Your task to perform on an android device: empty trash in google photos Image 0: 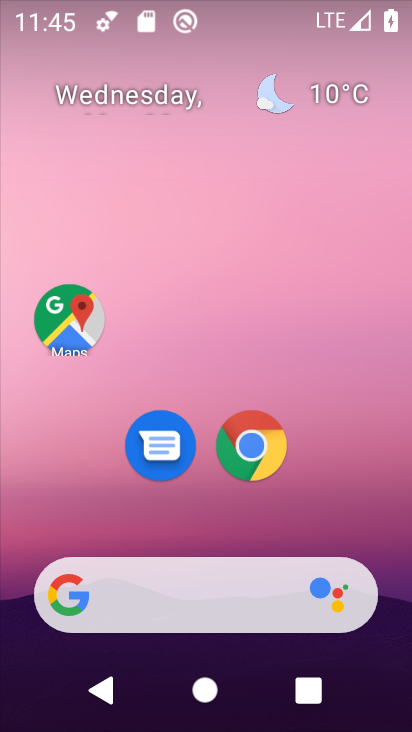
Step 0: drag from (200, 550) to (279, 89)
Your task to perform on an android device: empty trash in google photos Image 1: 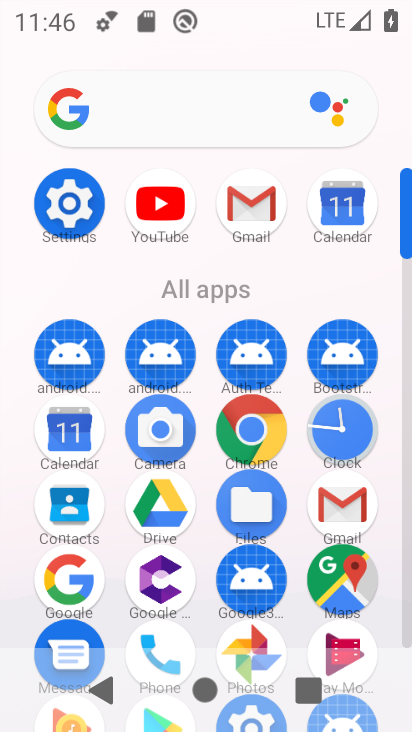
Step 1: drag from (233, 597) to (257, 325)
Your task to perform on an android device: empty trash in google photos Image 2: 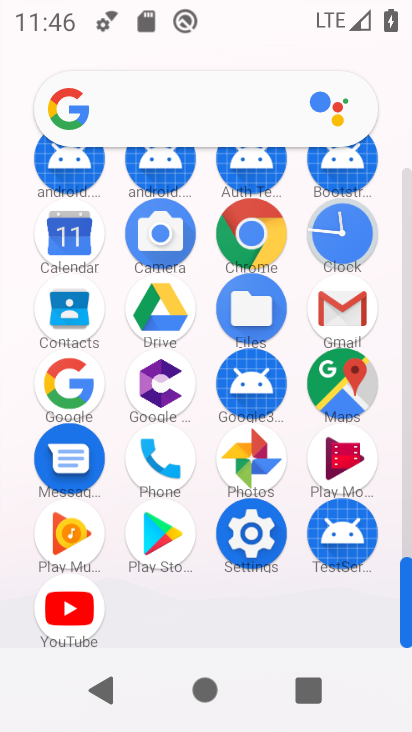
Step 2: click (247, 466)
Your task to perform on an android device: empty trash in google photos Image 3: 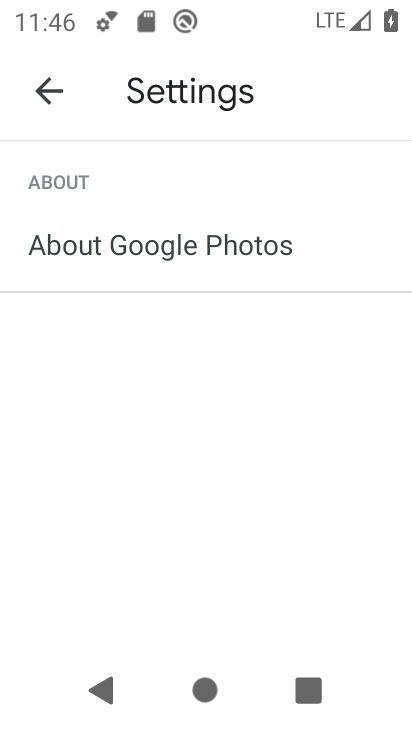
Step 3: click (39, 83)
Your task to perform on an android device: empty trash in google photos Image 4: 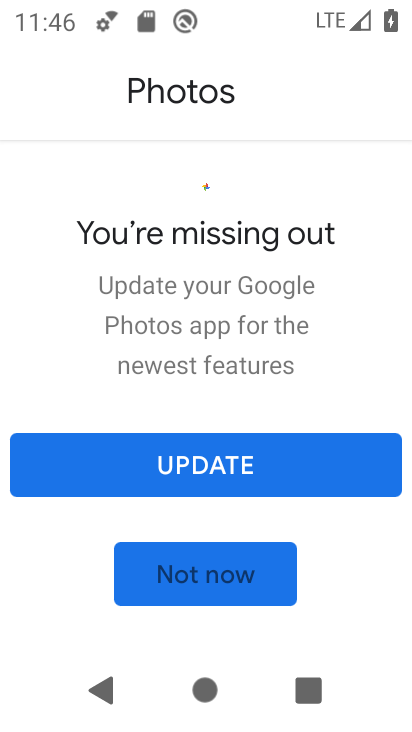
Step 4: click (188, 587)
Your task to perform on an android device: empty trash in google photos Image 5: 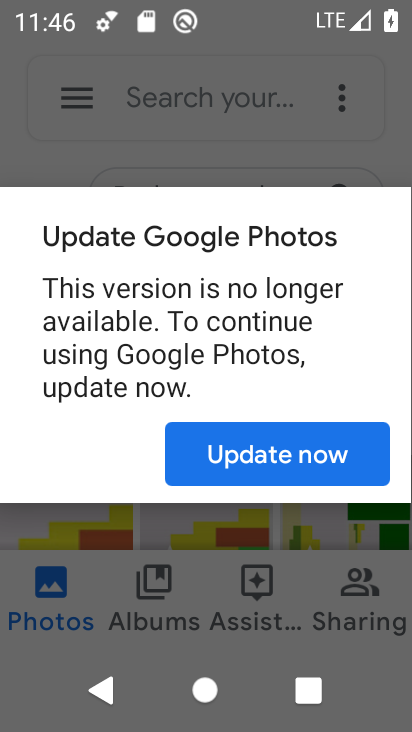
Step 5: click (262, 456)
Your task to perform on an android device: empty trash in google photos Image 6: 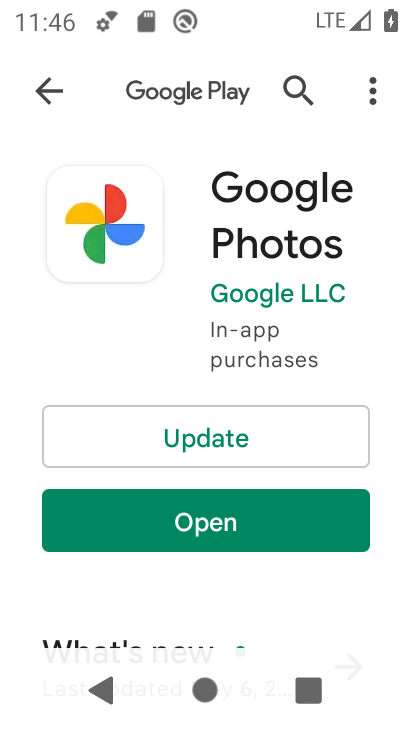
Step 6: click (205, 533)
Your task to perform on an android device: empty trash in google photos Image 7: 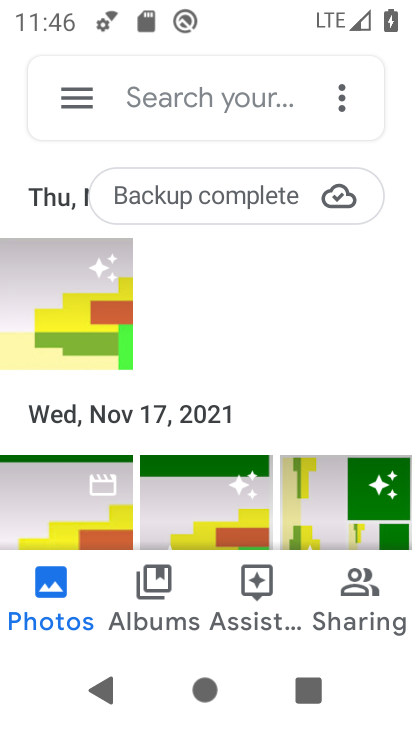
Step 7: click (80, 87)
Your task to perform on an android device: empty trash in google photos Image 8: 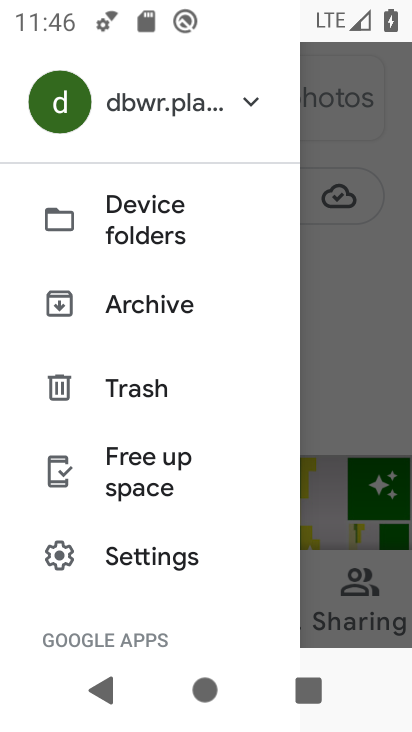
Step 8: click (139, 375)
Your task to perform on an android device: empty trash in google photos Image 9: 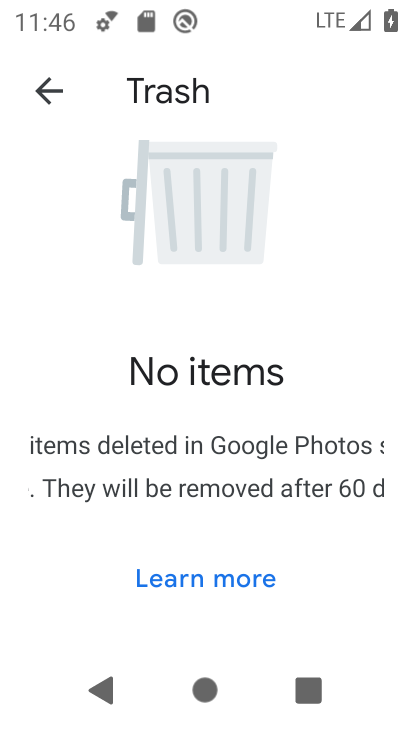
Step 9: task complete